Your task to perform on an android device: turn off sleep mode Image 0: 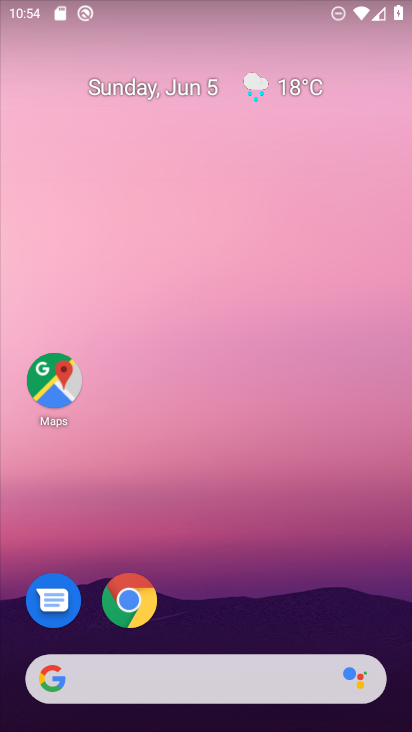
Step 0: drag from (205, 613) to (276, 43)
Your task to perform on an android device: turn off sleep mode Image 1: 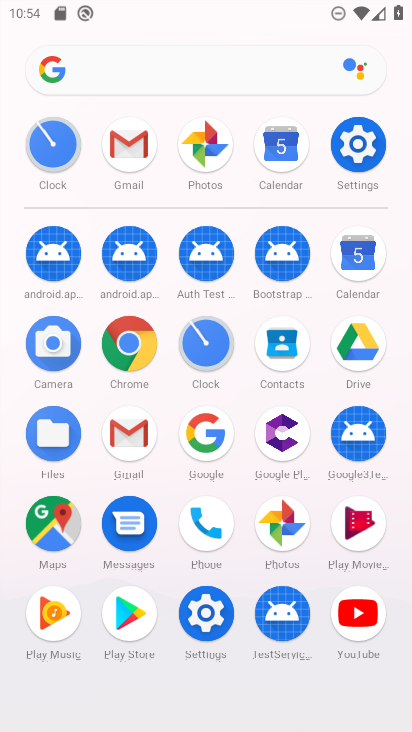
Step 1: click (368, 154)
Your task to perform on an android device: turn off sleep mode Image 2: 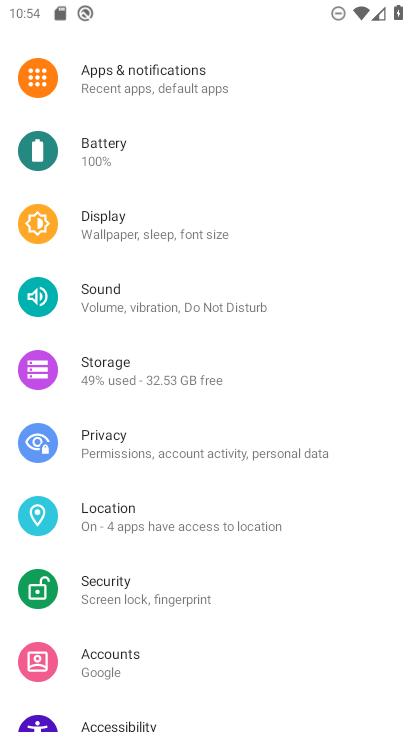
Step 2: drag from (232, 131) to (179, 664)
Your task to perform on an android device: turn off sleep mode Image 3: 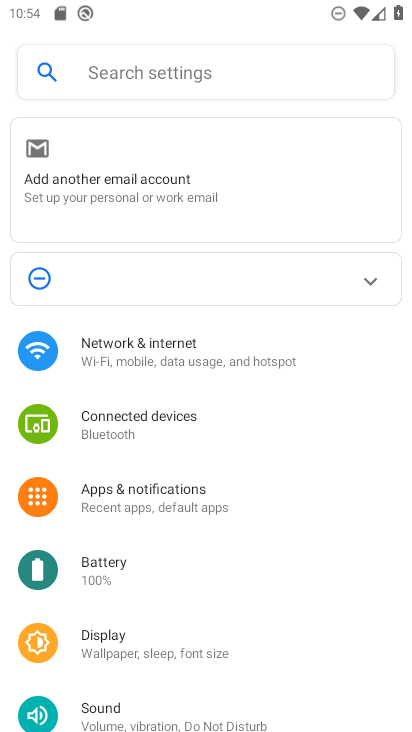
Step 3: click (105, 61)
Your task to perform on an android device: turn off sleep mode Image 4: 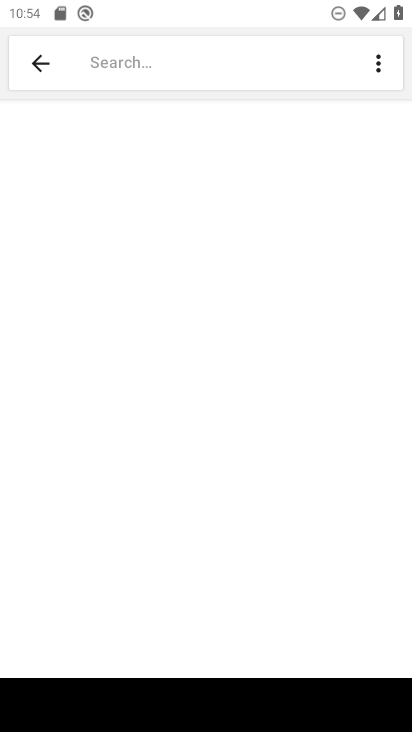
Step 4: type "sleep mode"
Your task to perform on an android device: turn off sleep mode Image 5: 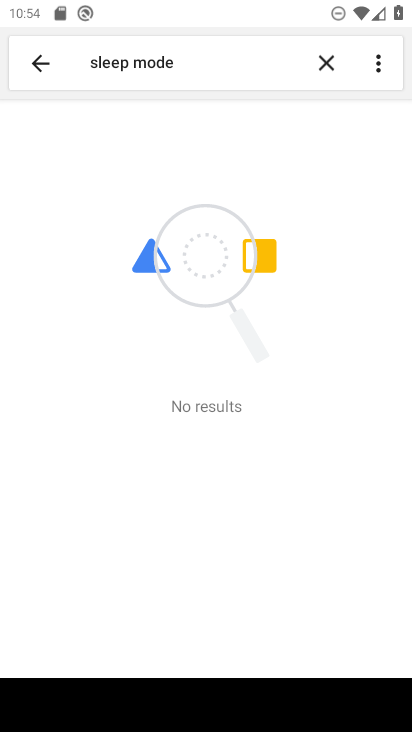
Step 5: task complete